Your task to perform on an android device: Open Google Maps and go to "Timeline" Image 0: 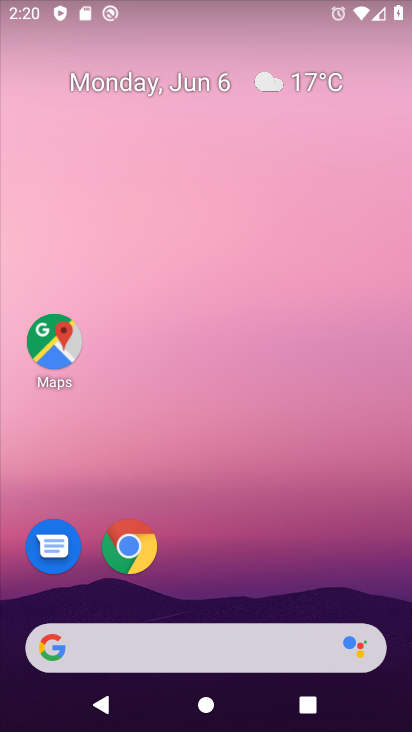
Step 0: click (59, 320)
Your task to perform on an android device: Open Google Maps and go to "Timeline" Image 1: 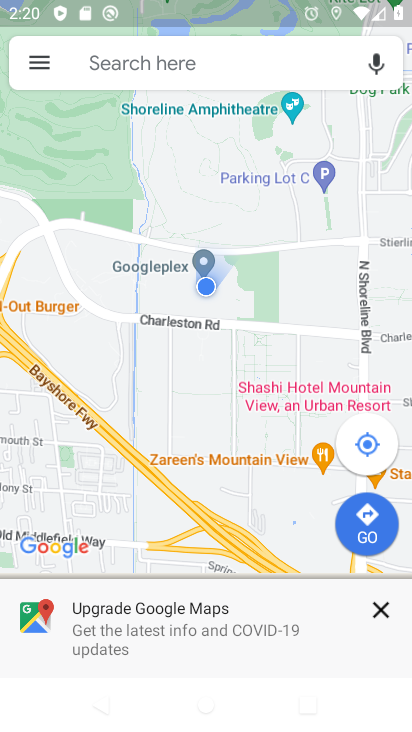
Step 1: click (40, 61)
Your task to perform on an android device: Open Google Maps and go to "Timeline" Image 2: 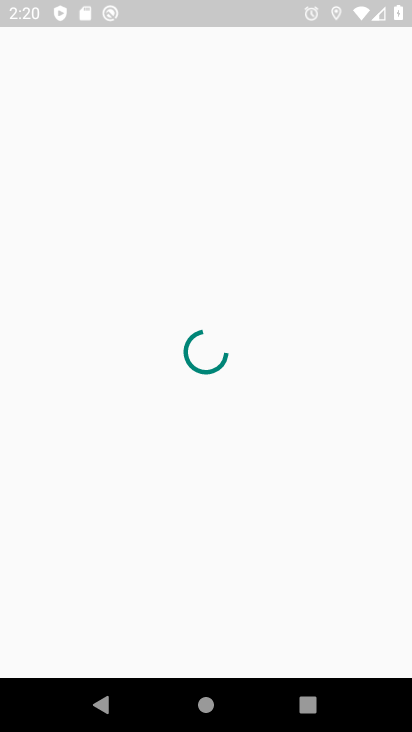
Step 2: click (117, 287)
Your task to perform on an android device: Open Google Maps and go to "Timeline" Image 3: 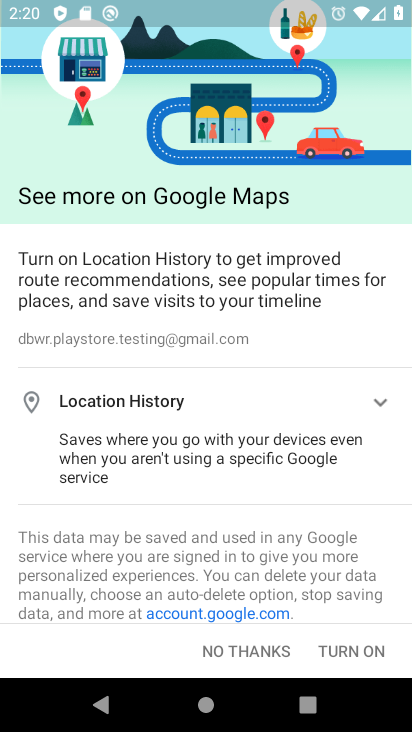
Step 3: click (241, 638)
Your task to perform on an android device: Open Google Maps and go to "Timeline" Image 4: 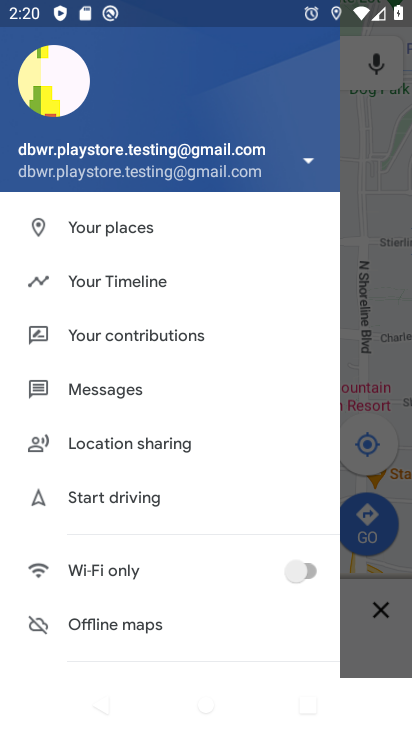
Step 4: click (118, 270)
Your task to perform on an android device: Open Google Maps and go to "Timeline" Image 5: 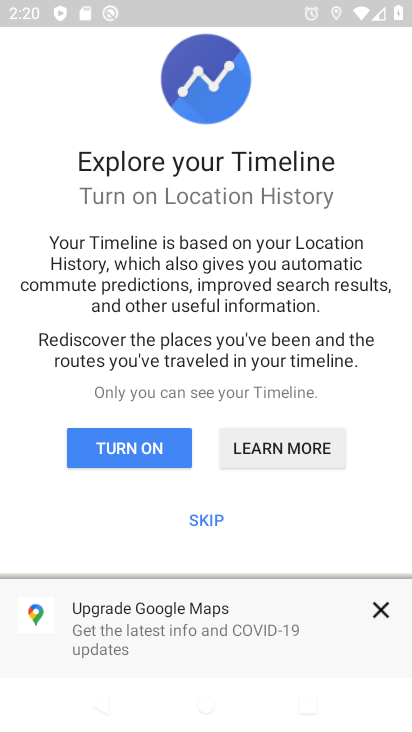
Step 5: click (211, 515)
Your task to perform on an android device: Open Google Maps and go to "Timeline" Image 6: 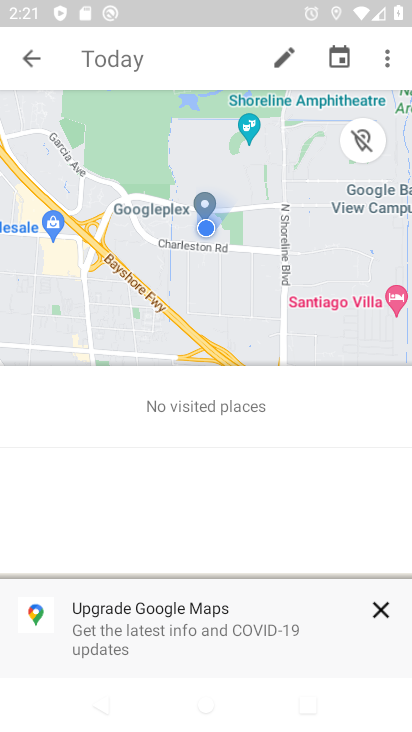
Step 6: task complete